Your task to perform on an android device: What's the weather going to be this weekend? Image 0: 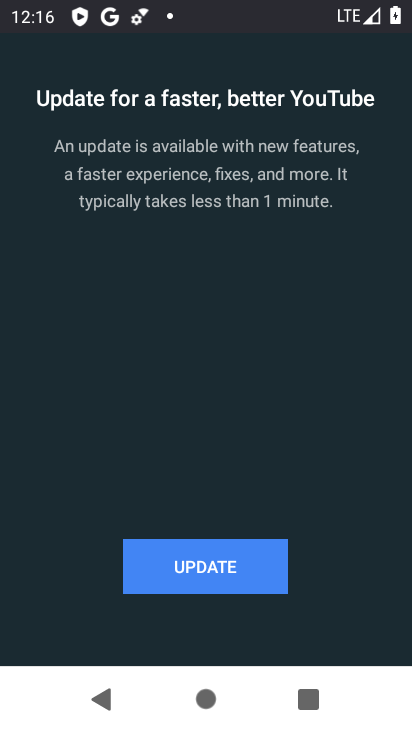
Step 0: press home button
Your task to perform on an android device: What's the weather going to be this weekend? Image 1: 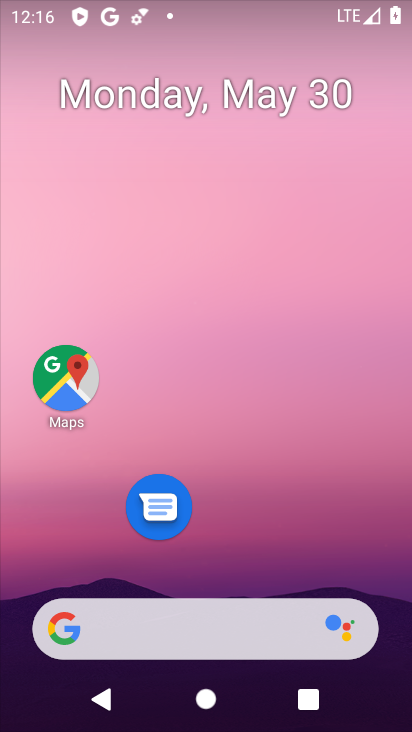
Step 1: drag from (234, 503) to (317, 71)
Your task to perform on an android device: What's the weather going to be this weekend? Image 2: 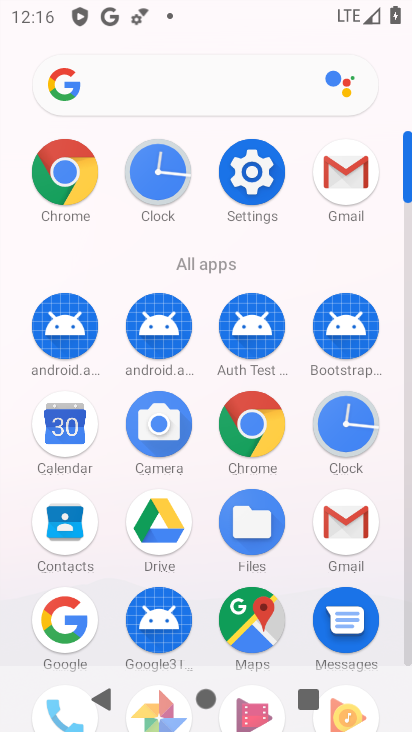
Step 2: click (255, 420)
Your task to perform on an android device: What's the weather going to be this weekend? Image 3: 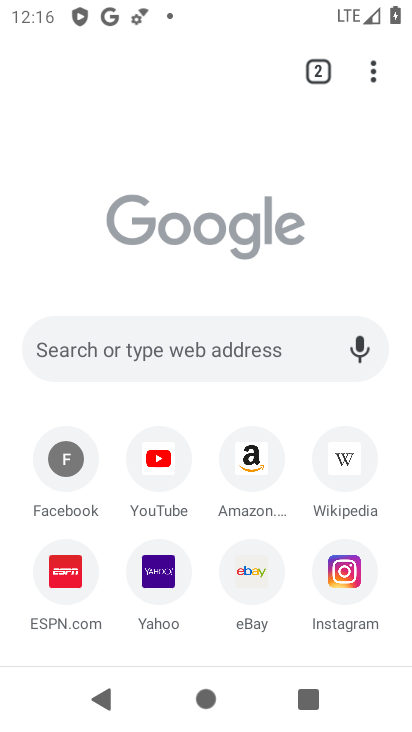
Step 3: click (223, 347)
Your task to perform on an android device: What's the weather going to be this weekend? Image 4: 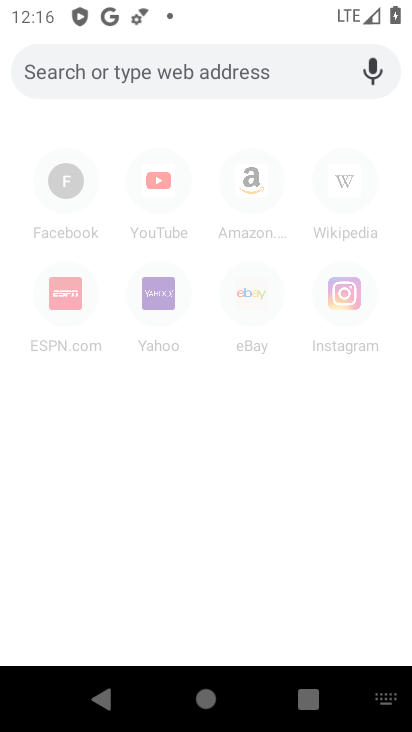
Step 4: type "What's the weather going to be this weekend?"
Your task to perform on an android device: What's the weather going to be this weekend? Image 5: 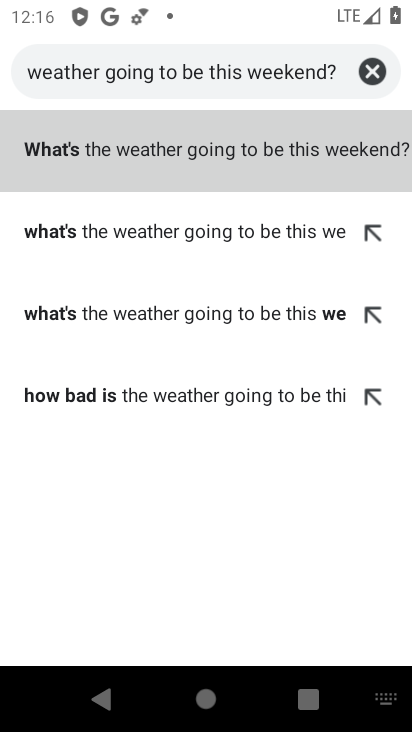
Step 5: click (276, 145)
Your task to perform on an android device: What's the weather going to be this weekend? Image 6: 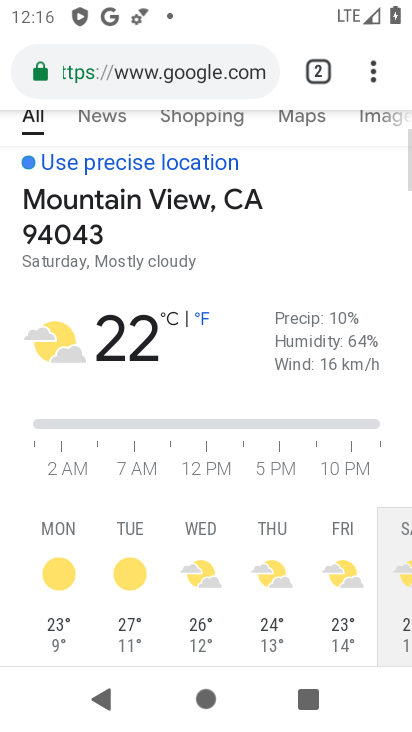
Step 6: task complete